Your task to perform on an android device: see tabs open on other devices in the chrome app Image 0: 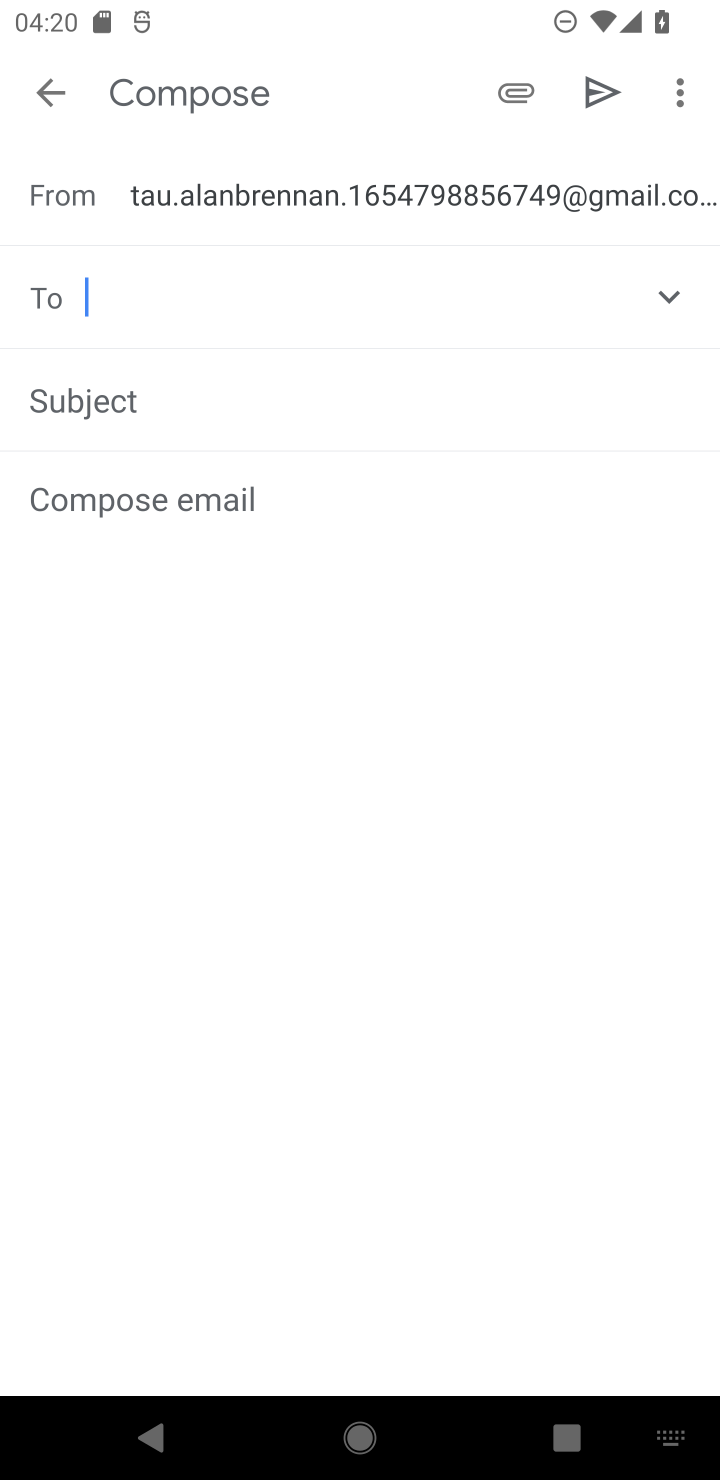
Step 0: press home button
Your task to perform on an android device: see tabs open on other devices in the chrome app Image 1: 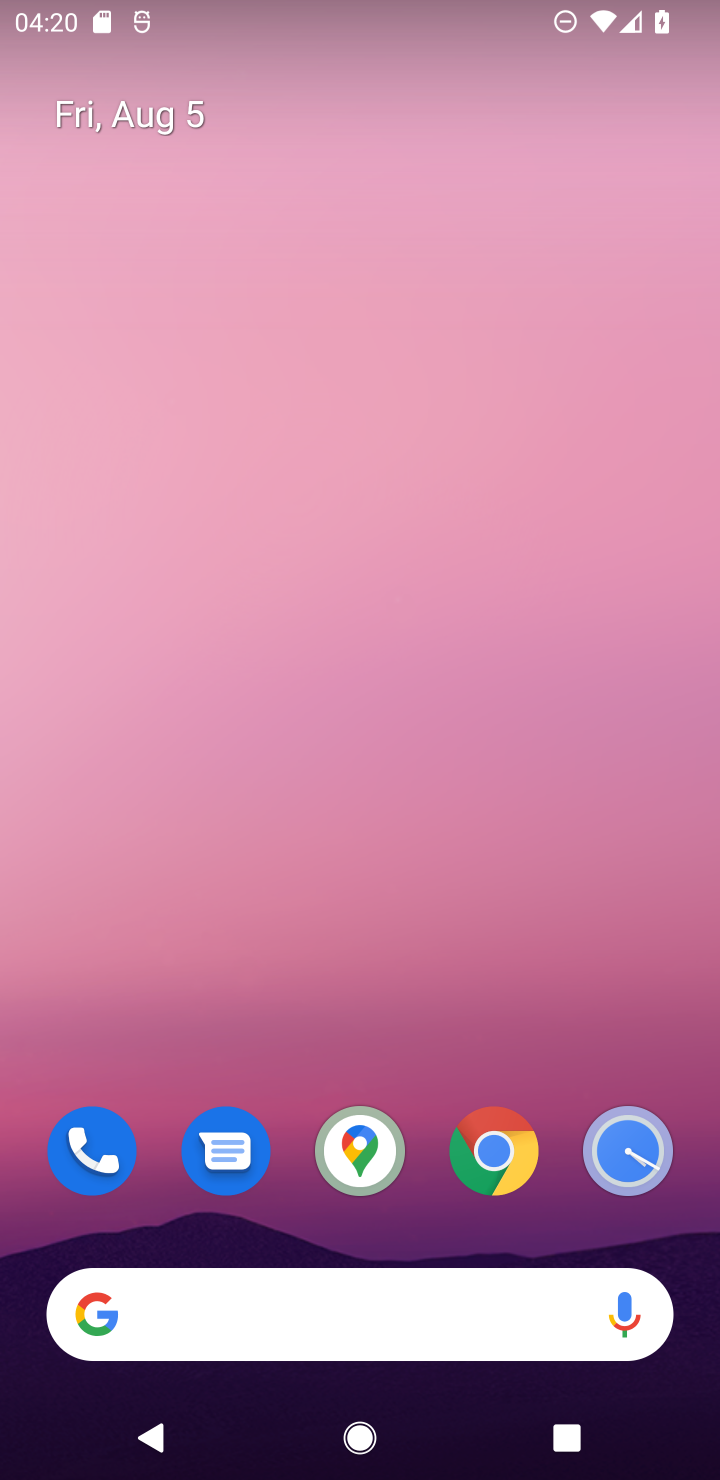
Step 1: click (504, 1157)
Your task to perform on an android device: see tabs open on other devices in the chrome app Image 2: 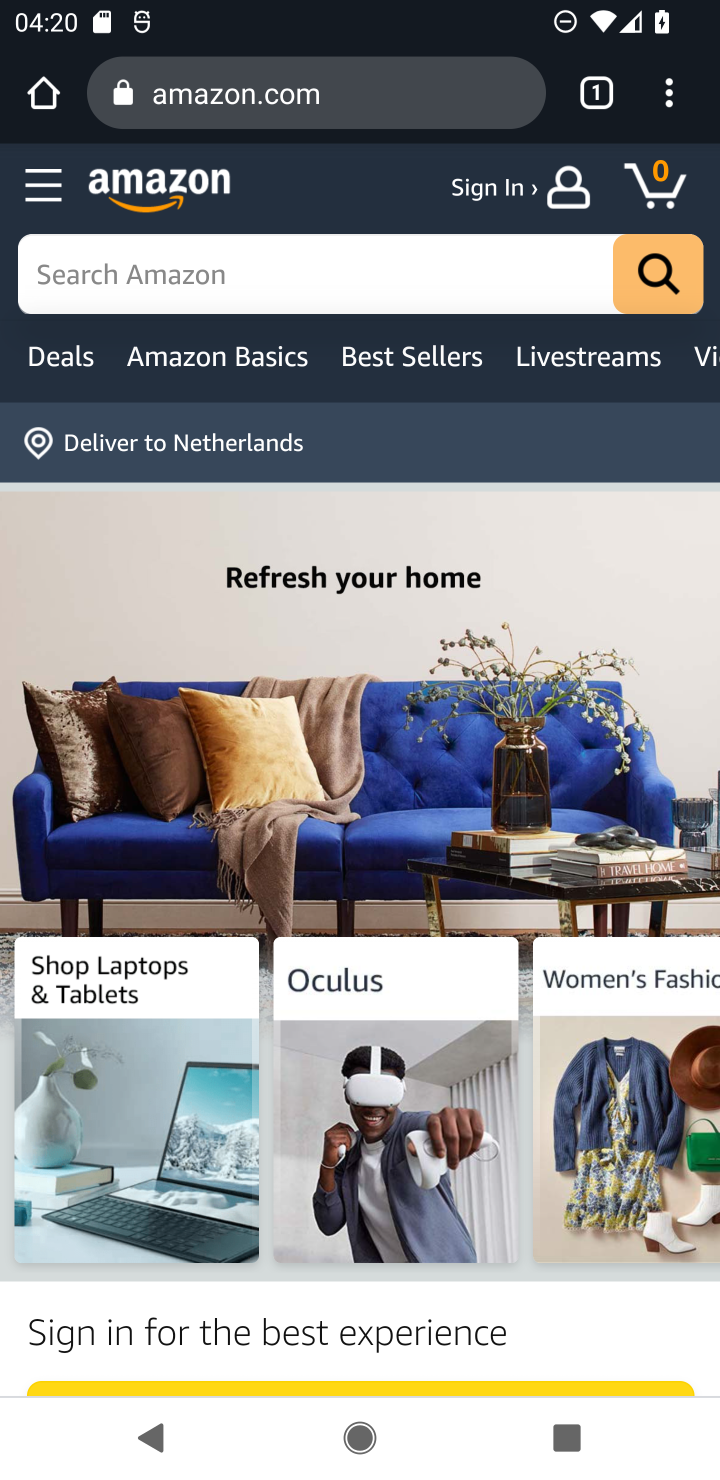
Step 2: click (667, 107)
Your task to perform on an android device: see tabs open on other devices in the chrome app Image 3: 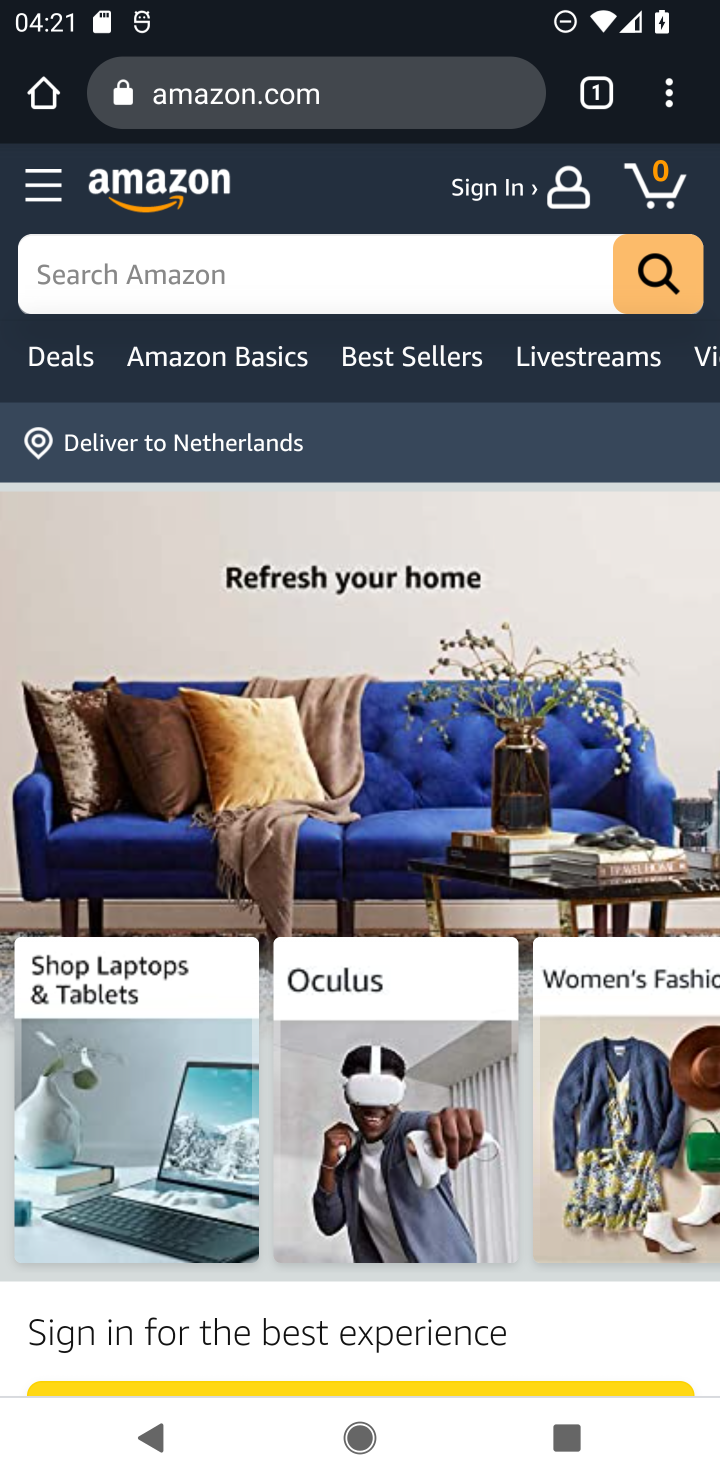
Step 3: click (709, 138)
Your task to perform on an android device: see tabs open on other devices in the chrome app Image 4: 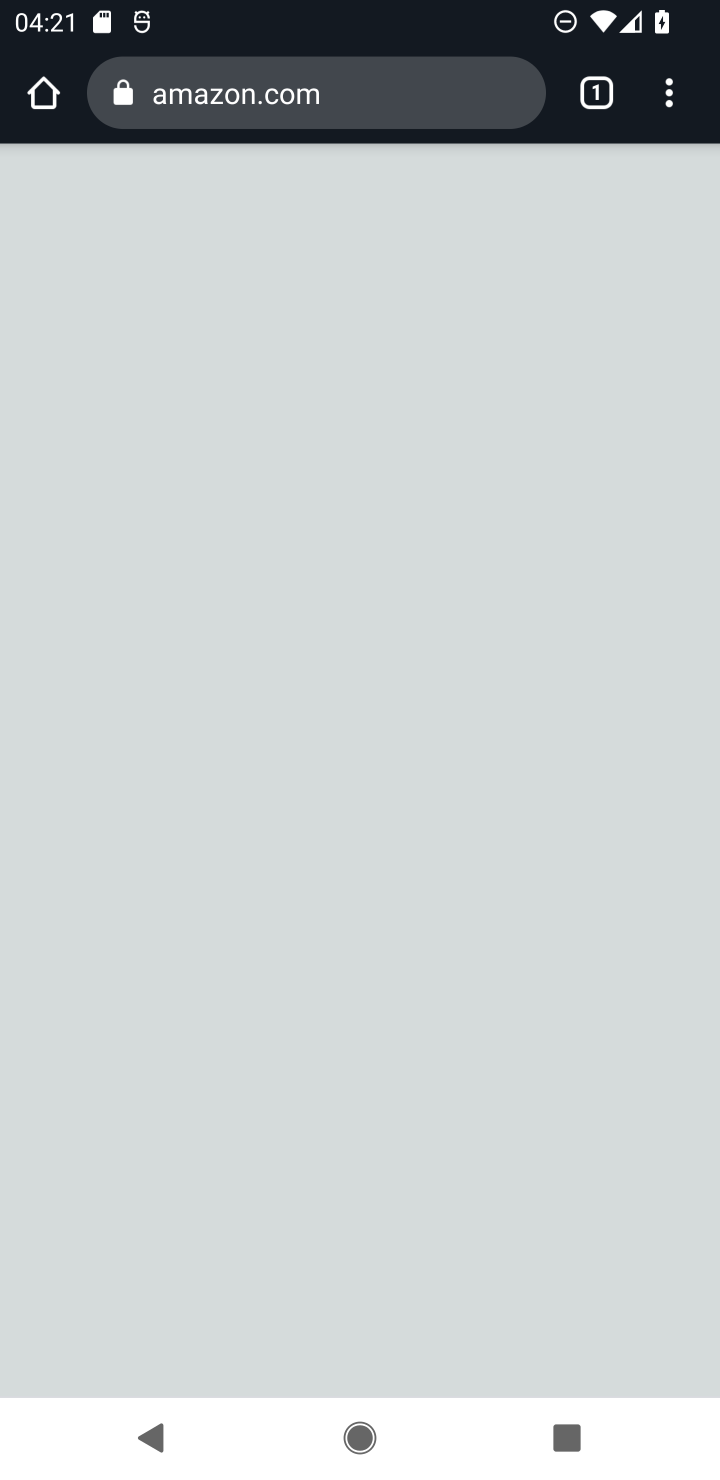
Step 4: click (709, 138)
Your task to perform on an android device: see tabs open on other devices in the chrome app Image 5: 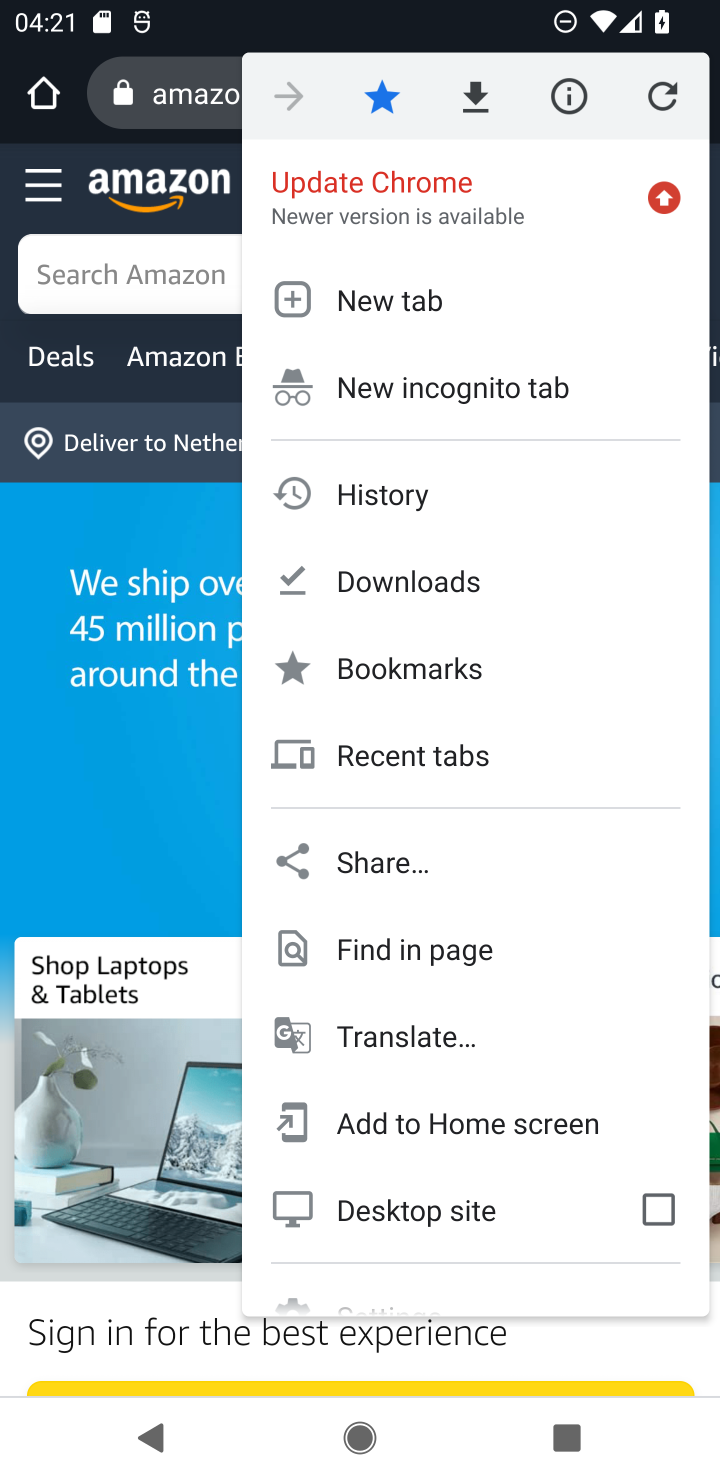
Step 5: click (417, 754)
Your task to perform on an android device: see tabs open on other devices in the chrome app Image 6: 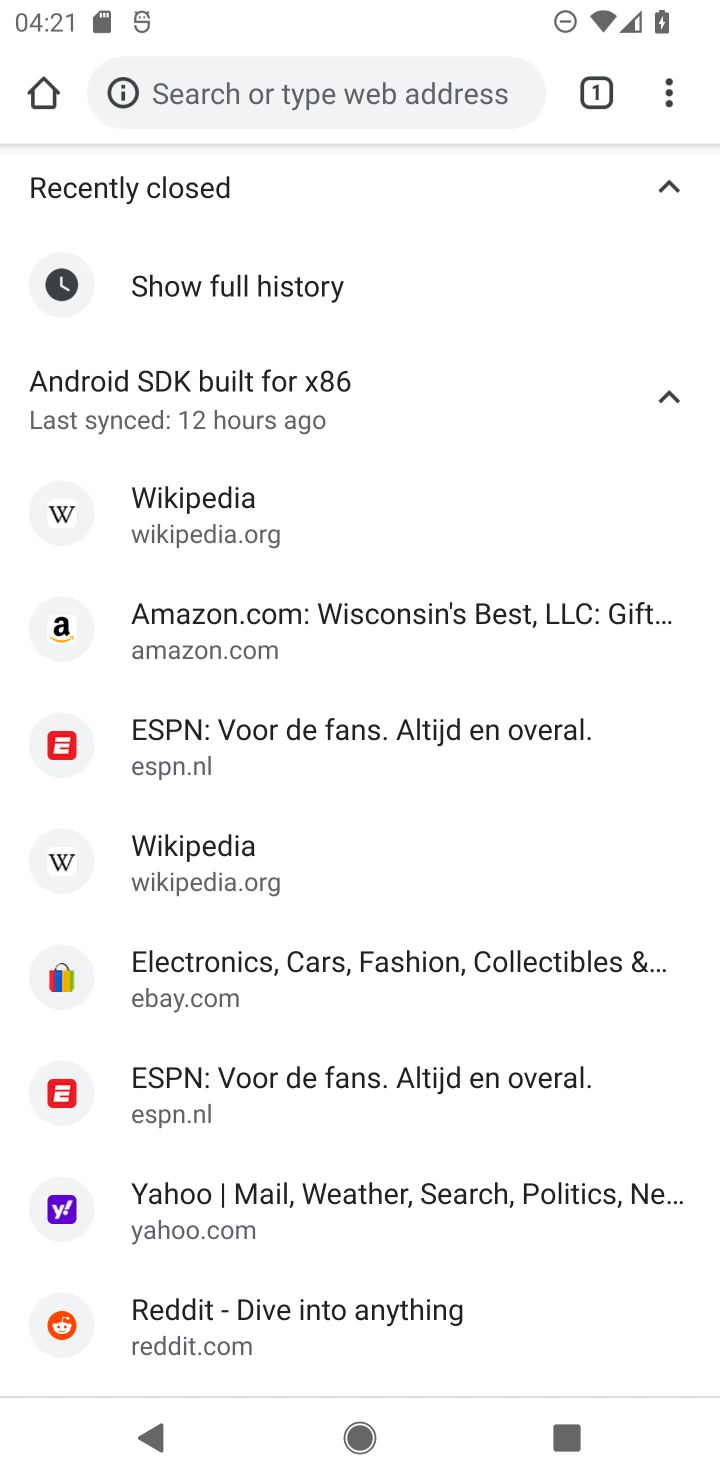
Step 6: task complete